Your task to perform on an android device: Open the calendar and show me this week's events Image 0: 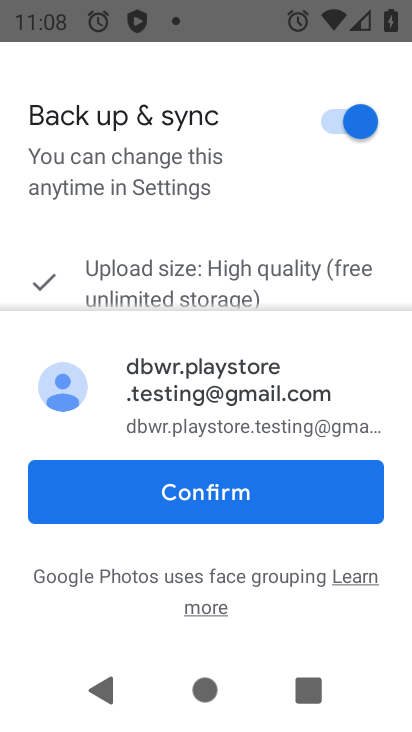
Step 0: press back button
Your task to perform on an android device: Open the calendar and show me this week's events Image 1: 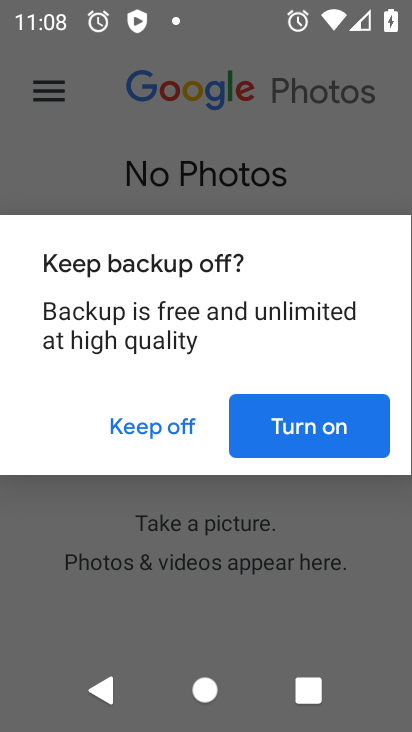
Step 1: press back button
Your task to perform on an android device: Open the calendar and show me this week's events Image 2: 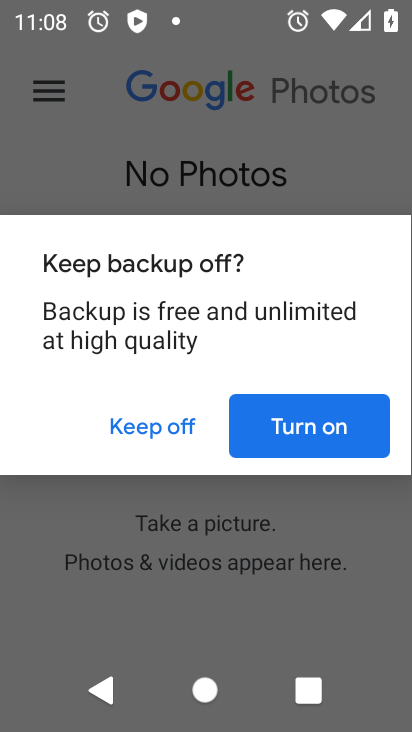
Step 2: press back button
Your task to perform on an android device: Open the calendar and show me this week's events Image 3: 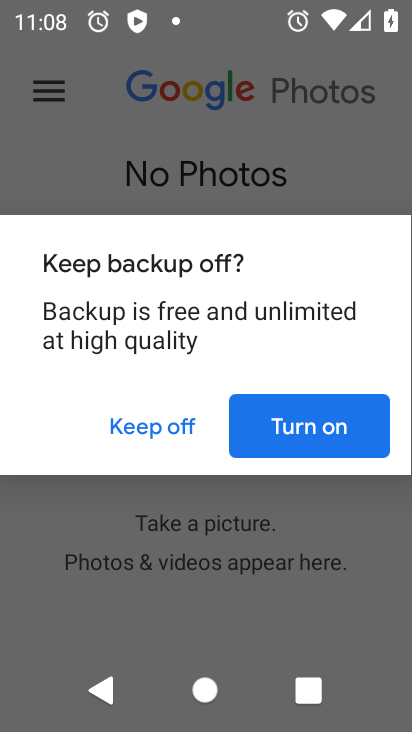
Step 3: press home button
Your task to perform on an android device: Open the calendar and show me this week's events Image 4: 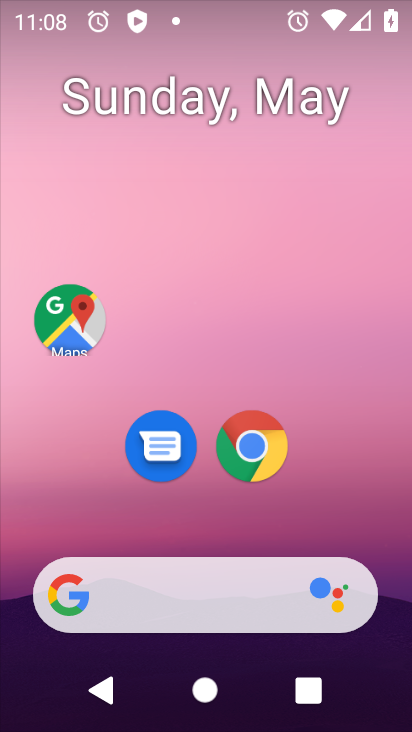
Step 4: drag from (351, 510) to (257, 7)
Your task to perform on an android device: Open the calendar and show me this week's events Image 5: 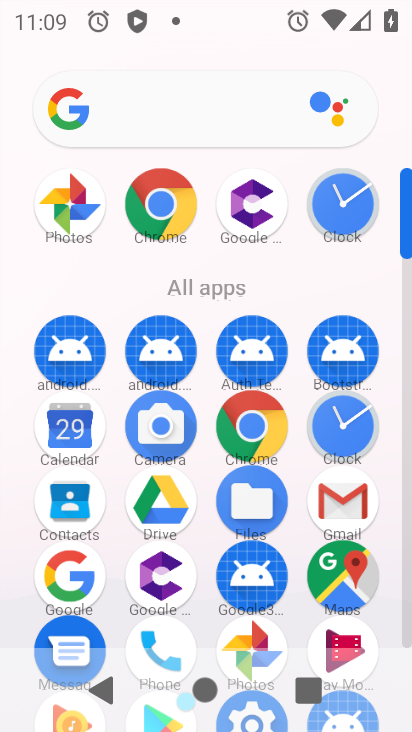
Step 5: drag from (11, 585) to (14, 256)
Your task to perform on an android device: Open the calendar and show me this week's events Image 6: 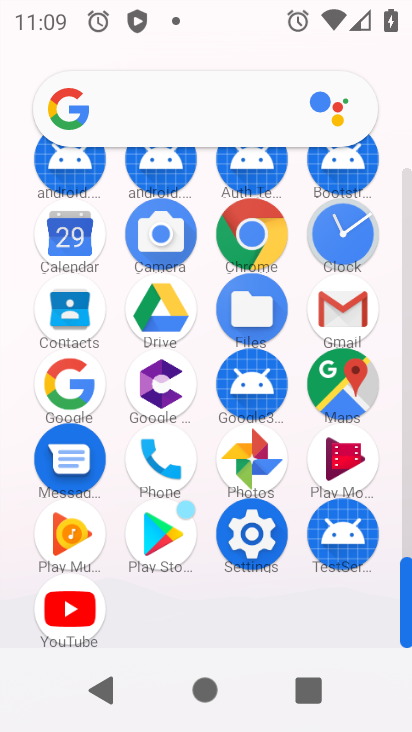
Step 6: click (67, 224)
Your task to perform on an android device: Open the calendar and show me this week's events Image 7: 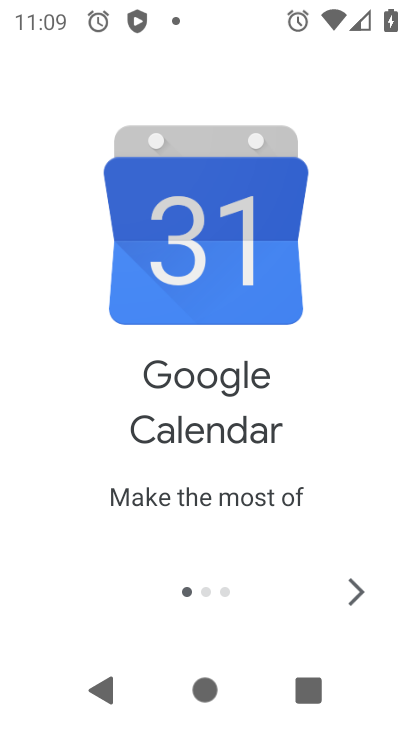
Step 7: click (353, 587)
Your task to perform on an android device: Open the calendar and show me this week's events Image 8: 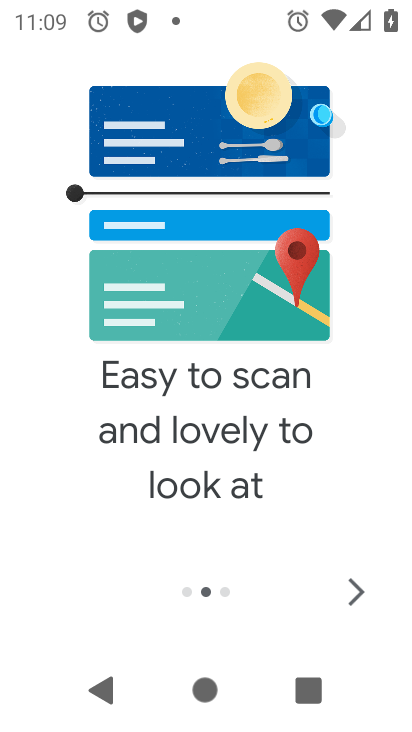
Step 8: click (352, 587)
Your task to perform on an android device: Open the calendar and show me this week's events Image 9: 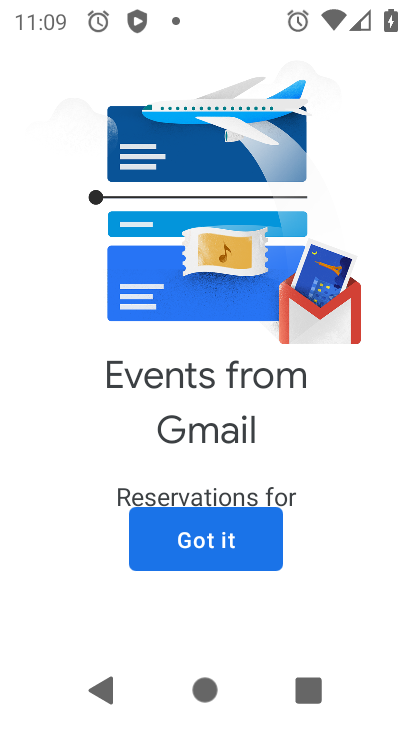
Step 9: click (180, 541)
Your task to perform on an android device: Open the calendar and show me this week's events Image 10: 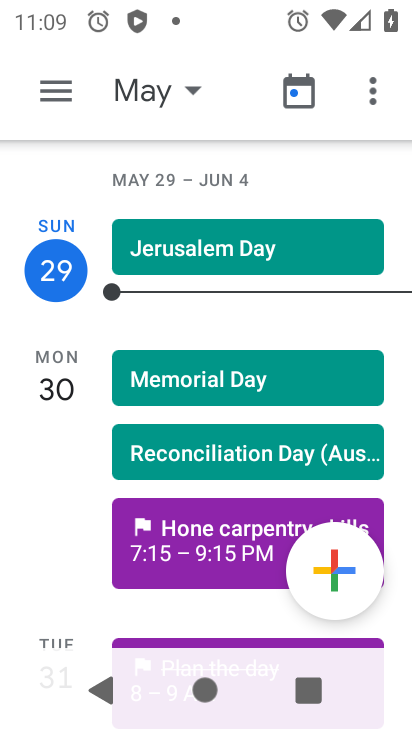
Step 10: click (16, 94)
Your task to perform on an android device: Open the calendar and show me this week's events Image 11: 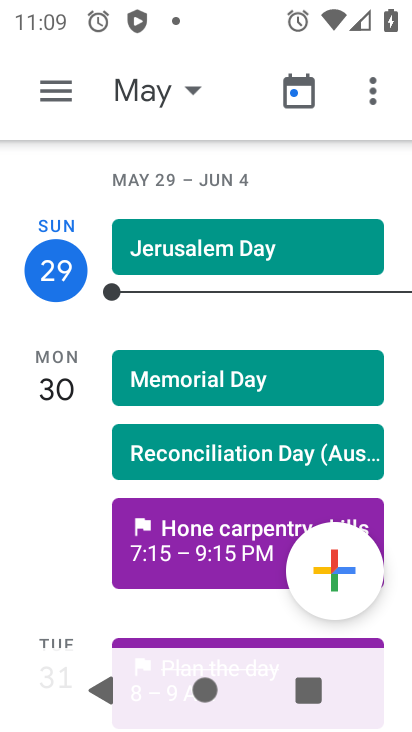
Step 11: click (58, 87)
Your task to perform on an android device: Open the calendar and show me this week's events Image 12: 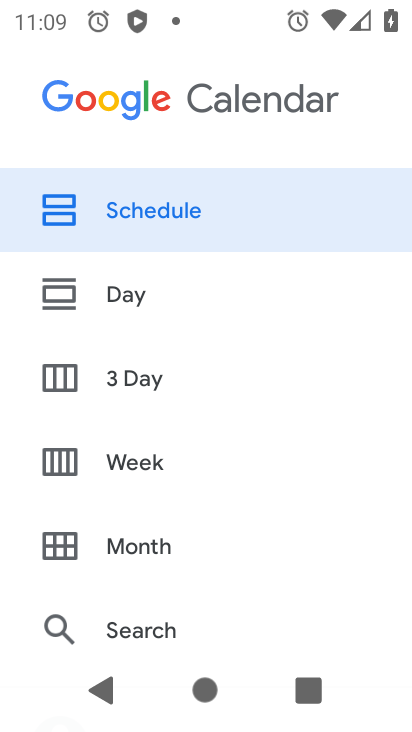
Step 12: click (137, 464)
Your task to perform on an android device: Open the calendar and show me this week's events Image 13: 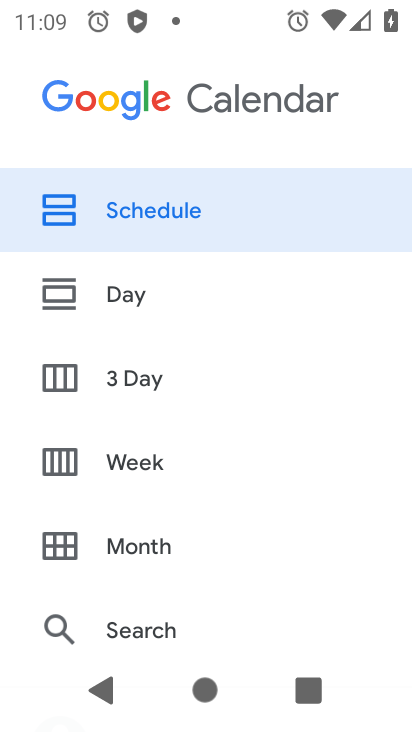
Step 13: click (142, 452)
Your task to perform on an android device: Open the calendar and show me this week's events Image 14: 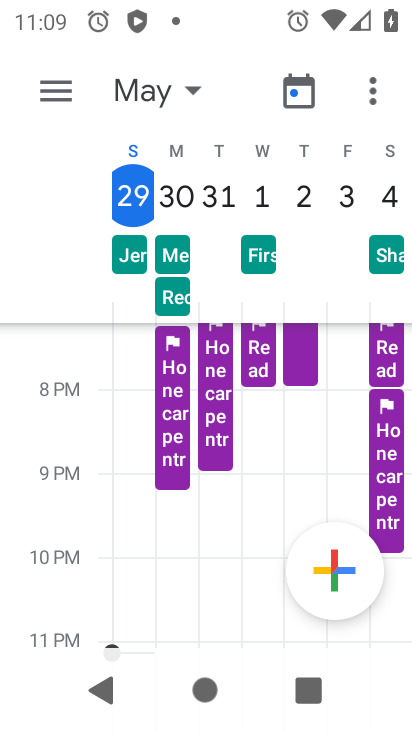
Step 14: task complete